Your task to perform on an android device: Search for sushi restaurants on Maps Image 0: 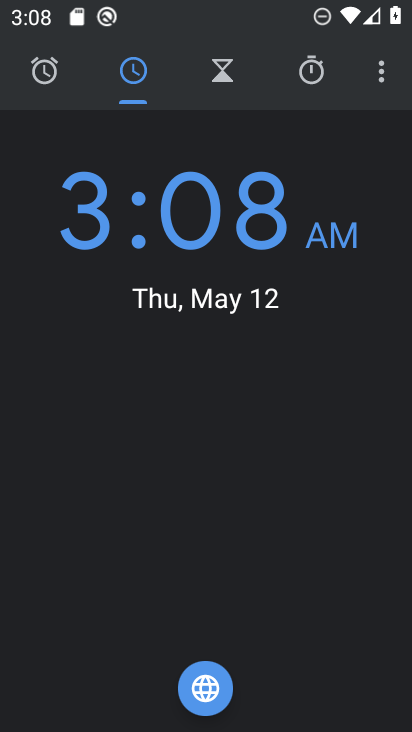
Step 0: press home button
Your task to perform on an android device: Search for sushi restaurants on Maps Image 1: 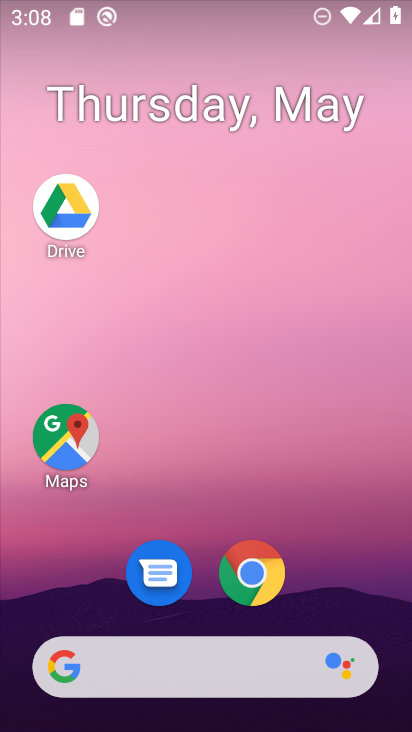
Step 1: drag from (324, 560) to (258, 124)
Your task to perform on an android device: Search for sushi restaurants on Maps Image 2: 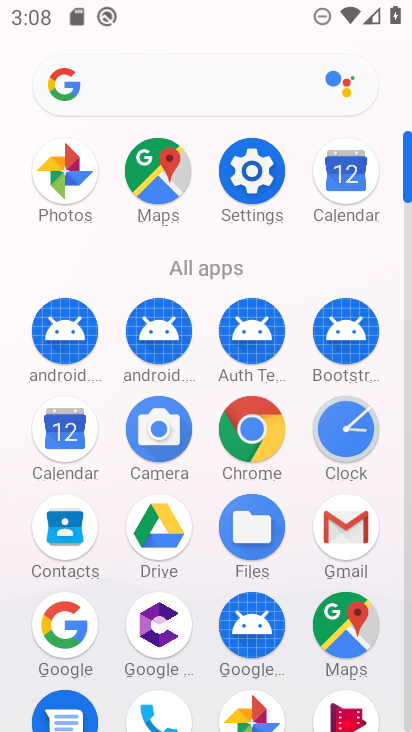
Step 2: click (146, 181)
Your task to perform on an android device: Search for sushi restaurants on Maps Image 3: 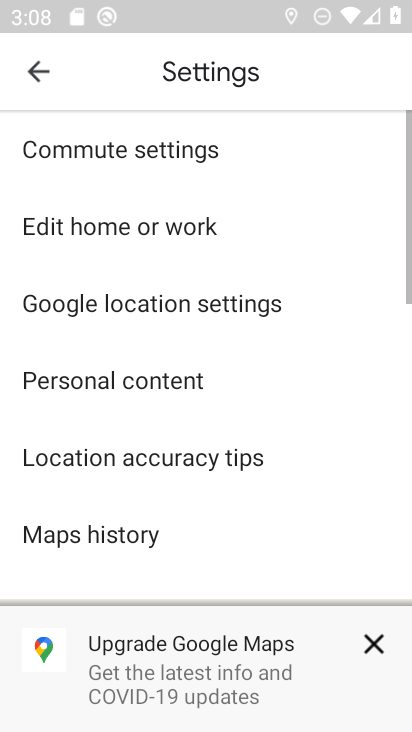
Step 3: click (34, 68)
Your task to perform on an android device: Search for sushi restaurants on Maps Image 4: 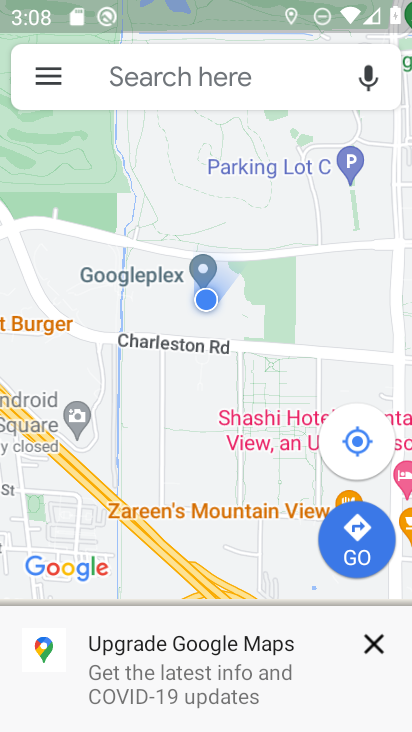
Step 4: click (173, 79)
Your task to perform on an android device: Search for sushi restaurants on Maps Image 5: 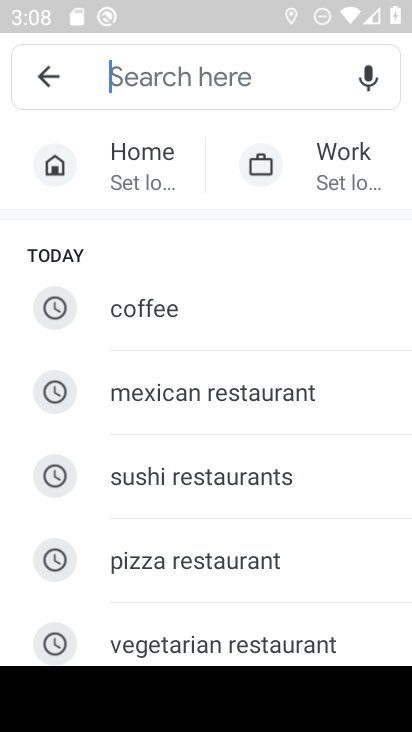
Step 5: click (195, 472)
Your task to perform on an android device: Search for sushi restaurants on Maps Image 6: 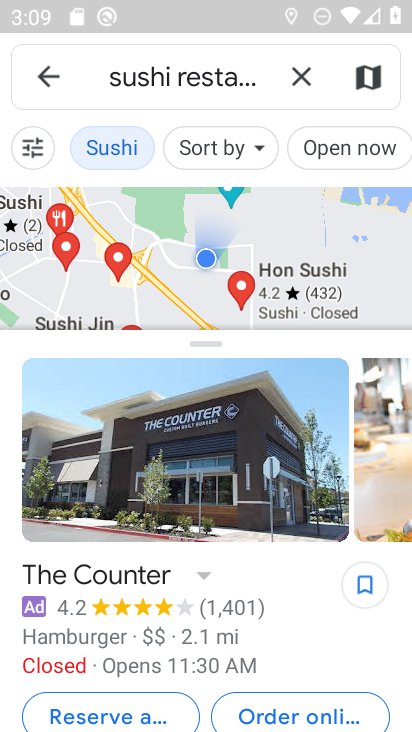
Step 6: task complete